Your task to perform on an android device: Open location settings Image 0: 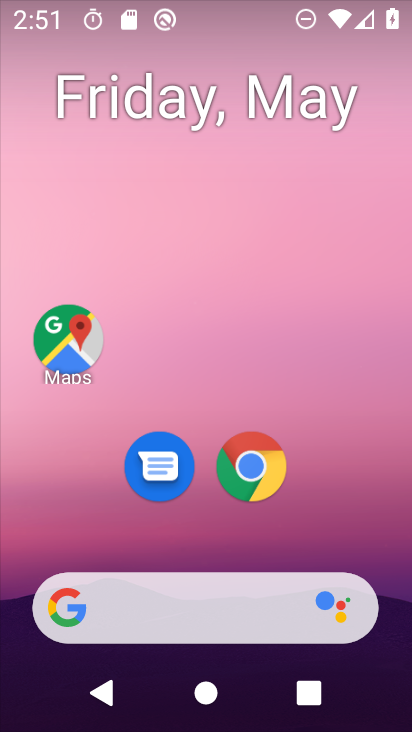
Step 0: drag from (359, 519) to (378, 0)
Your task to perform on an android device: Open location settings Image 1: 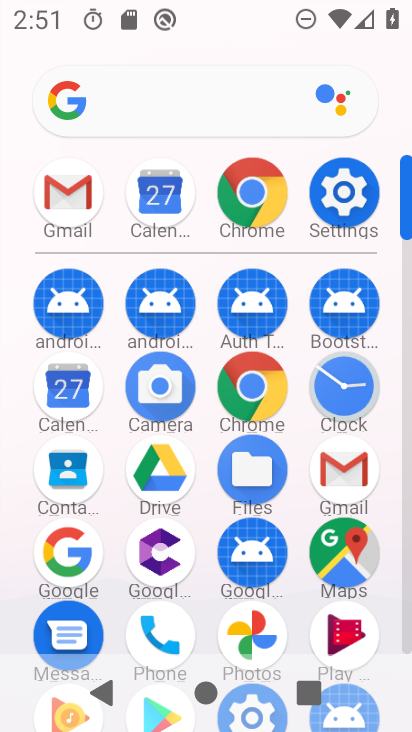
Step 1: click (343, 195)
Your task to perform on an android device: Open location settings Image 2: 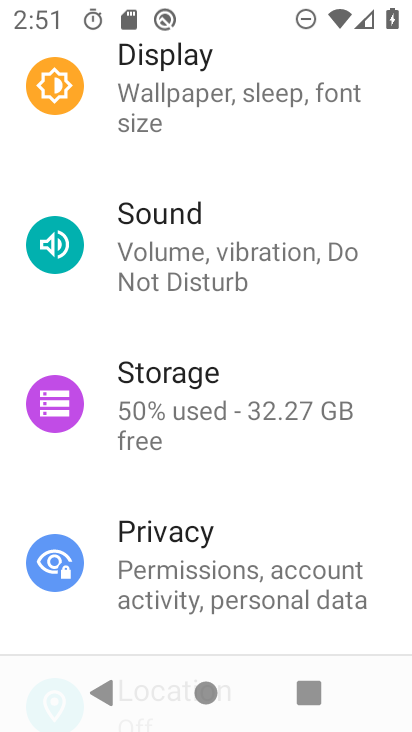
Step 2: drag from (243, 476) to (267, 136)
Your task to perform on an android device: Open location settings Image 3: 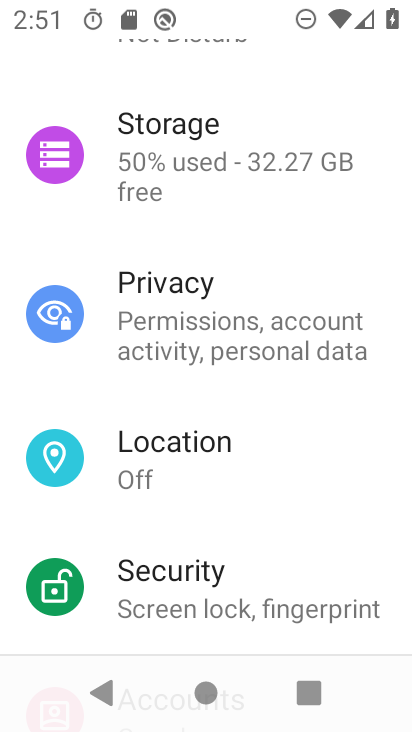
Step 3: drag from (256, 208) to (242, 577)
Your task to perform on an android device: Open location settings Image 4: 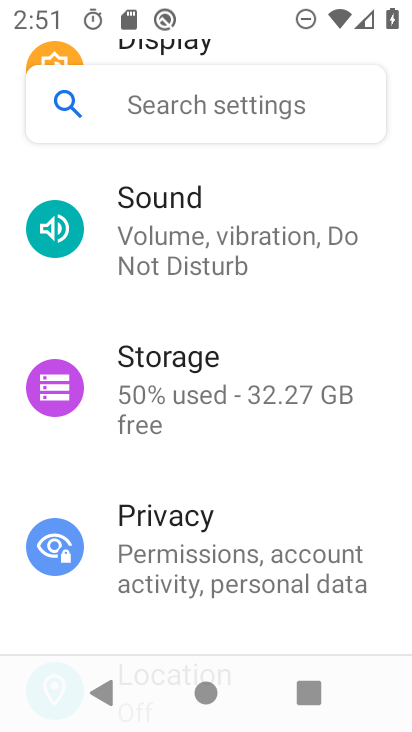
Step 4: drag from (242, 556) to (251, 180)
Your task to perform on an android device: Open location settings Image 5: 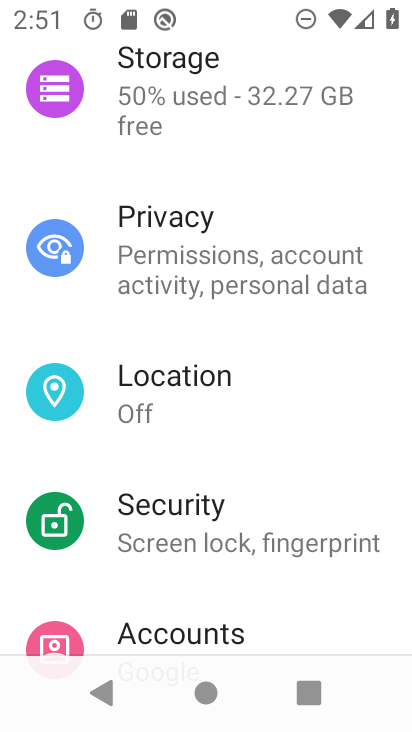
Step 5: drag from (240, 581) to (271, 214)
Your task to perform on an android device: Open location settings Image 6: 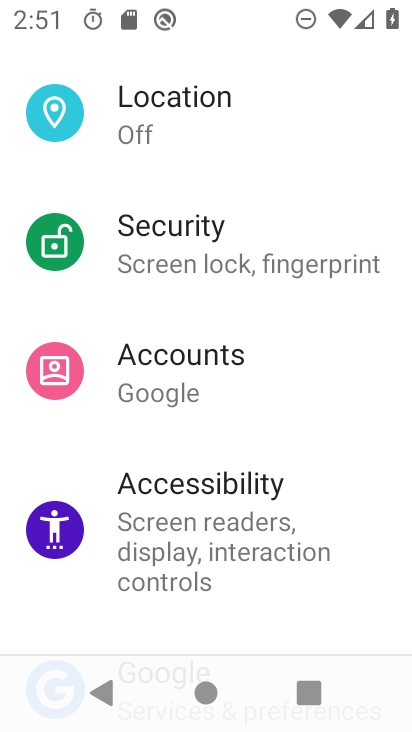
Step 6: click (167, 142)
Your task to perform on an android device: Open location settings Image 7: 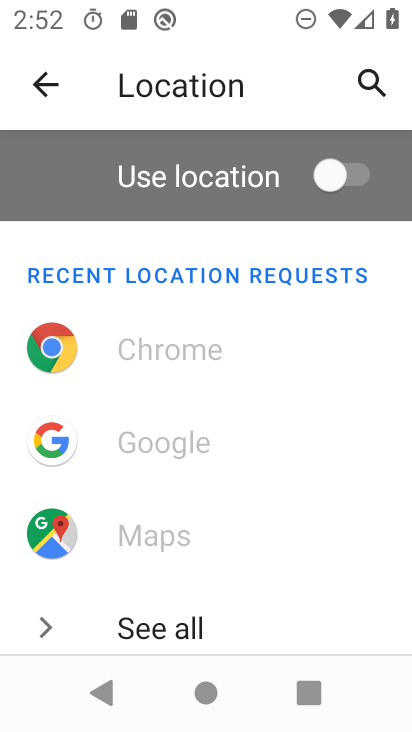
Step 7: task complete